Your task to perform on an android device: turn on bluetooth scan Image 0: 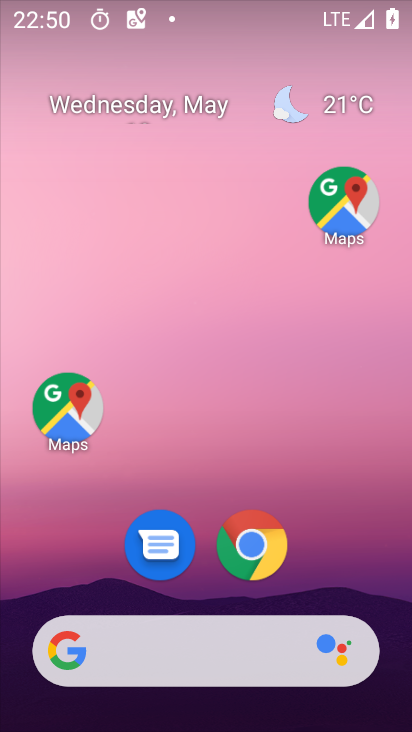
Step 0: drag from (331, 580) to (332, 98)
Your task to perform on an android device: turn on bluetooth scan Image 1: 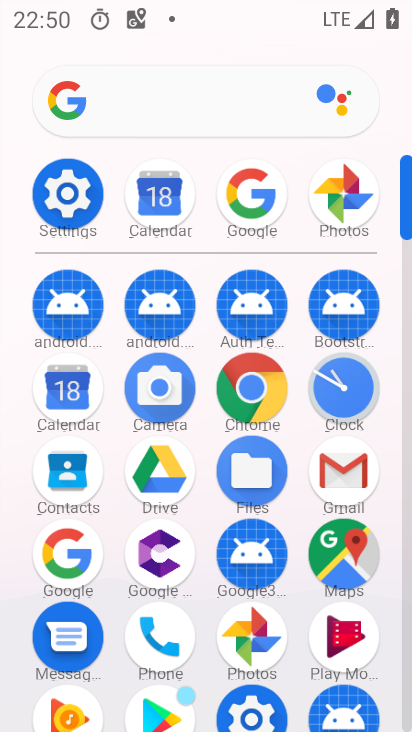
Step 1: click (75, 201)
Your task to perform on an android device: turn on bluetooth scan Image 2: 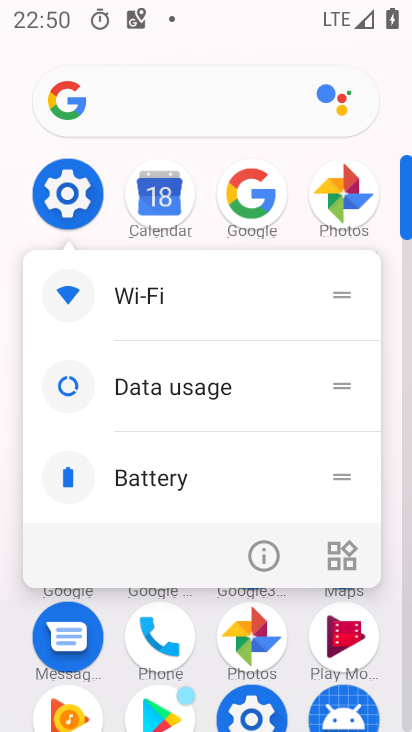
Step 2: click (62, 204)
Your task to perform on an android device: turn on bluetooth scan Image 3: 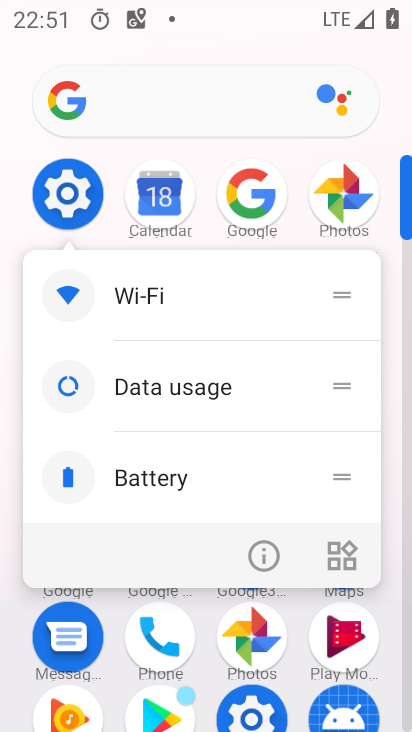
Step 3: click (72, 189)
Your task to perform on an android device: turn on bluetooth scan Image 4: 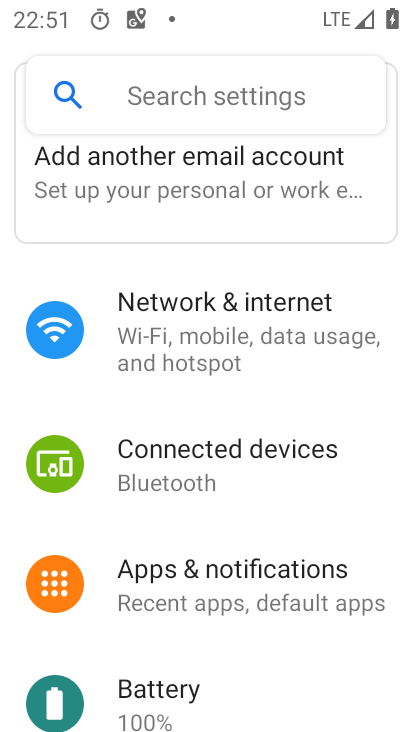
Step 4: drag from (194, 577) to (222, 365)
Your task to perform on an android device: turn on bluetooth scan Image 5: 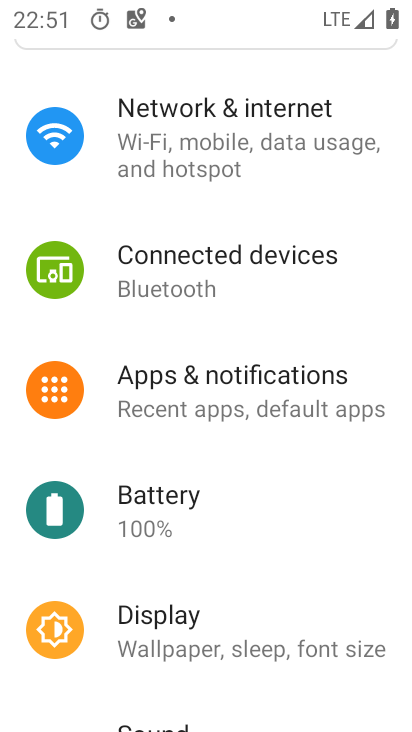
Step 5: drag from (228, 588) to (265, 441)
Your task to perform on an android device: turn on bluetooth scan Image 6: 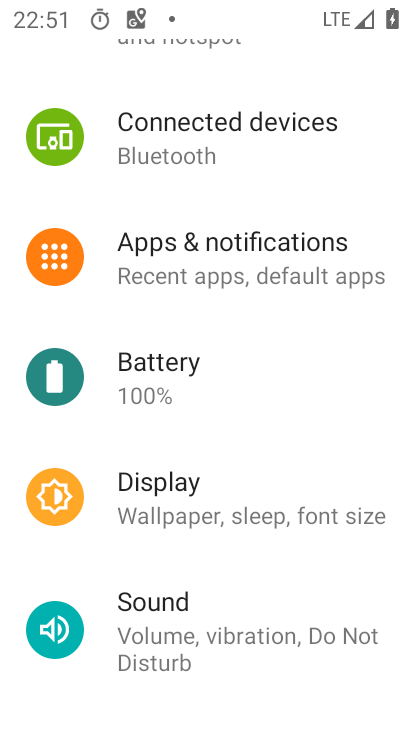
Step 6: drag from (228, 577) to (265, 421)
Your task to perform on an android device: turn on bluetooth scan Image 7: 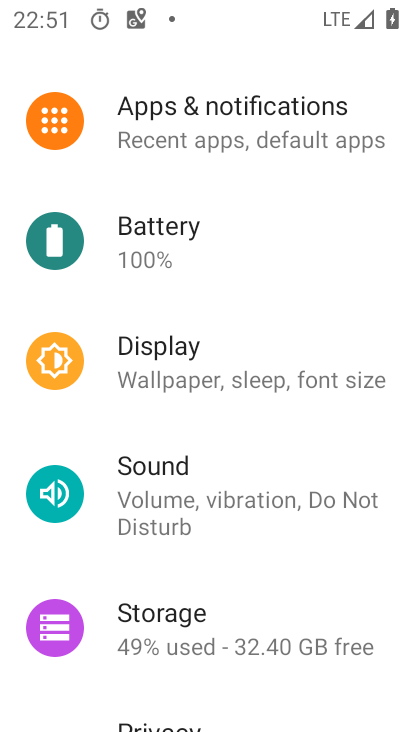
Step 7: drag from (256, 558) to (268, 432)
Your task to perform on an android device: turn on bluetooth scan Image 8: 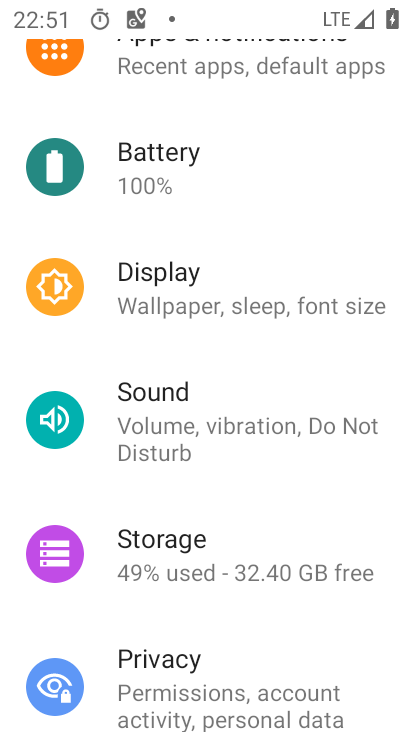
Step 8: drag from (292, 541) to (314, 394)
Your task to perform on an android device: turn on bluetooth scan Image 9: 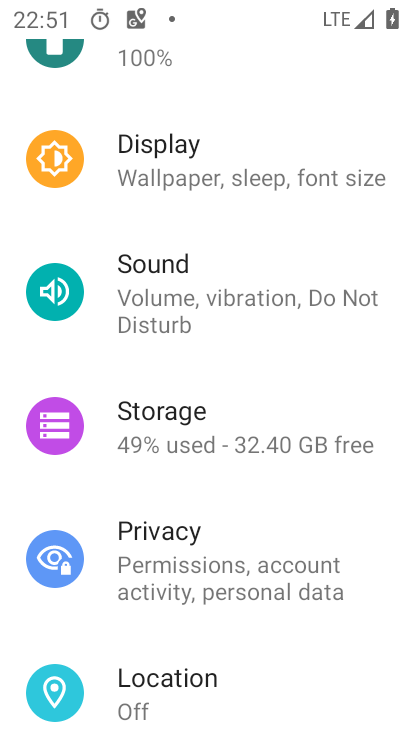
Step 9: drag from (256, 626) to (260, 436)
Your task to perform on an android device: turn on bluetooth scan Image 10: 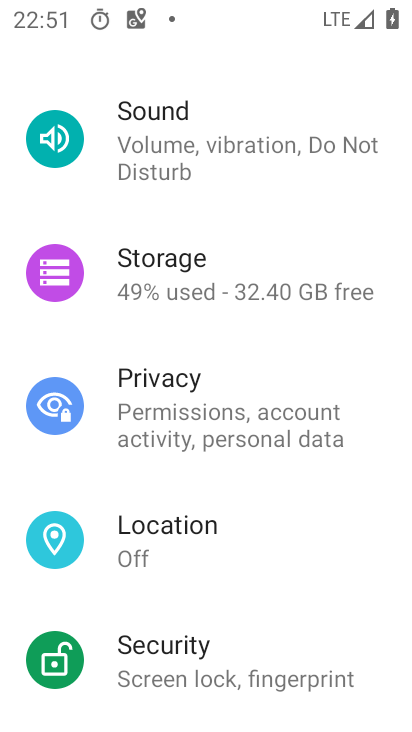
Step 10: click (177, 541)
Your task to perform on an android device: turn on bluetooth scan Image 11: 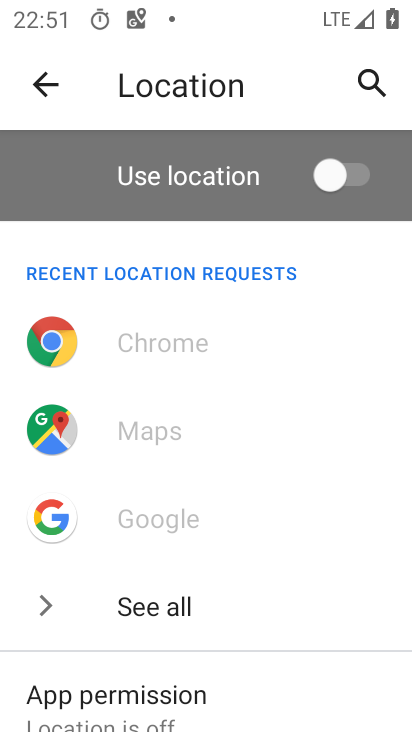
Step 11: drag from (228, 643) to (303, 116)
Your task to perform on an android device: turn on bluetooth scan Image 12: 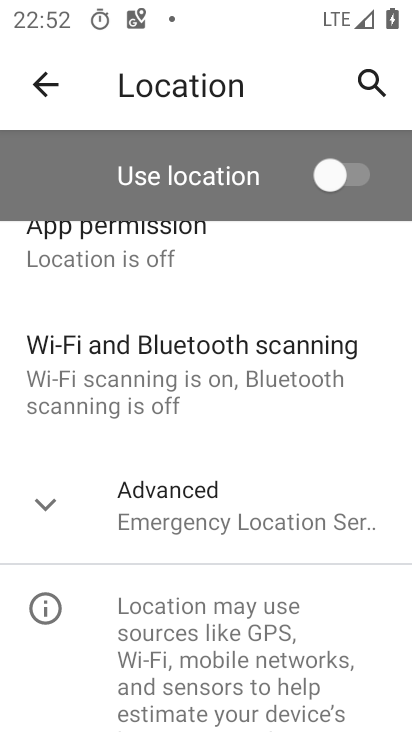
Step 12: click (148, 386)
Your task to perform on an android device: turn on bluetooth scan Image 13: 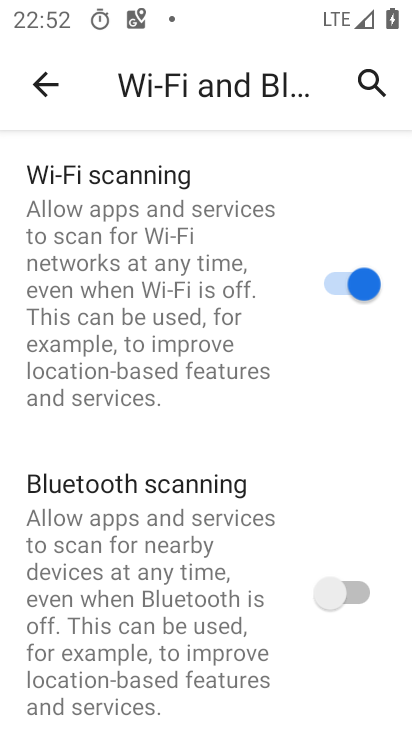
Step 13: click (361, 577)
Your task to perform on an android device: turn on bluetooth scan Image 14: 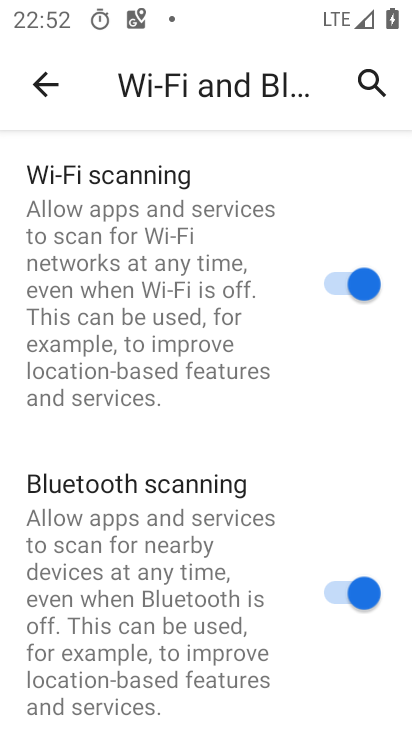
Step 14: task complete